Your task to perform on an android device: Go to Reddit.com Image 0: 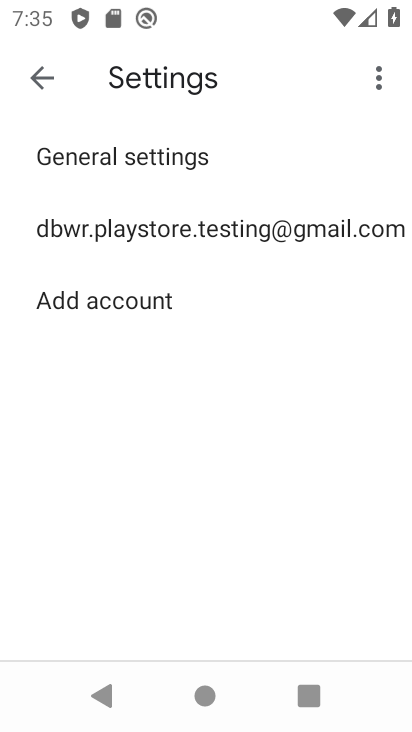
Step 0: press back button
Your task to perform on an android device: Go to Reddit.com Image 1: 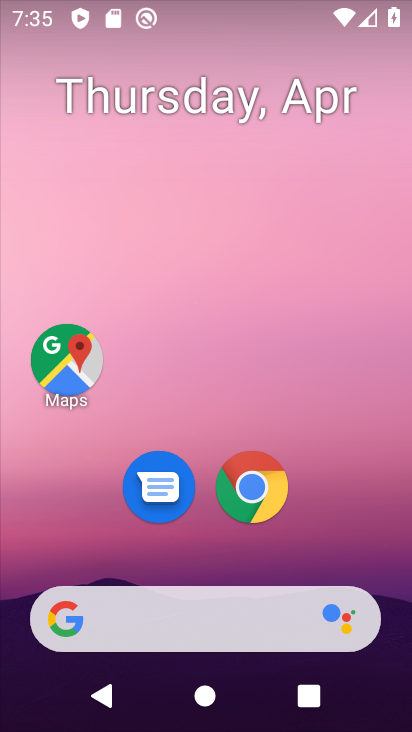
Step 1: click (252, 511)
Your task to perform on an android device: Go to Reddit.com Image 2: 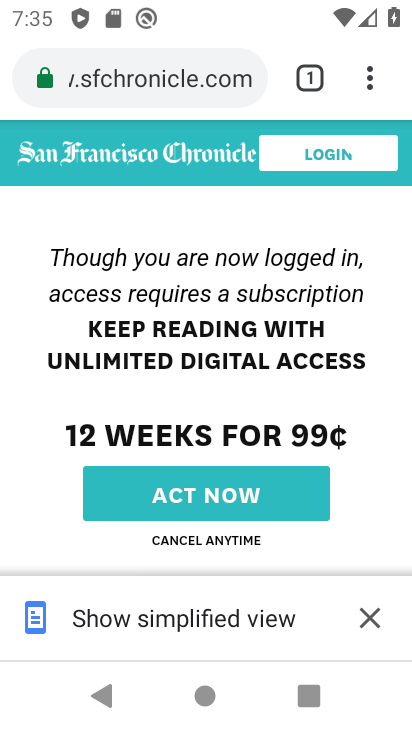
Step 2: press back button
Your task to perform on an android device: Go to Reddit.com Image 3: 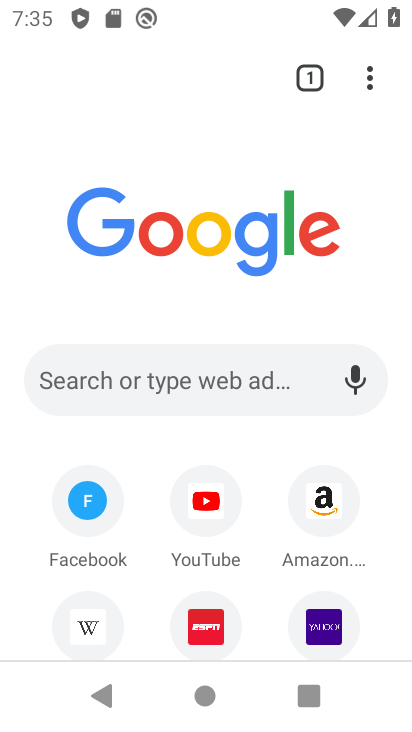
Step 3: click (141, 384)
Your task to perform on an android device: Go to Reddit.com Image 4: 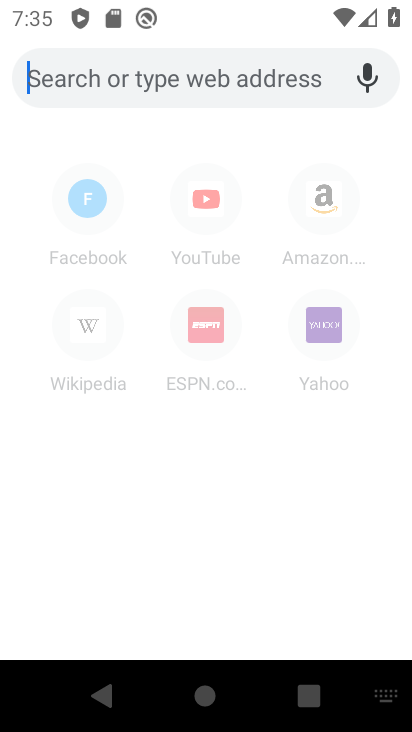
Step 4: type "reddit.com"
Your task to perform on an android device: Go to Reddit.com Image 5: 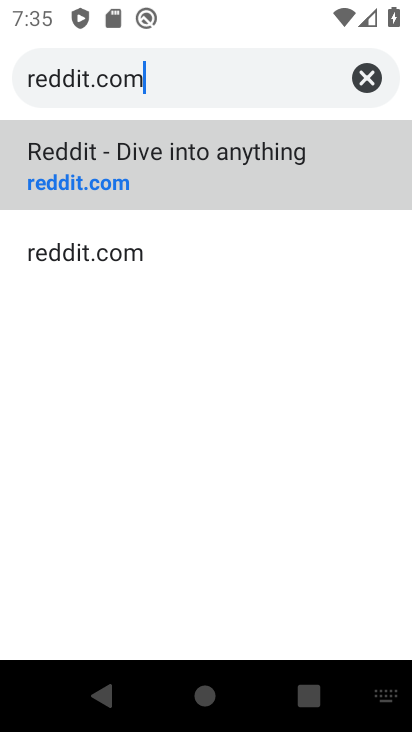
Step 5: click (253, 166)
Your task to perform on an android device: Go to Reddit.com Image 6: 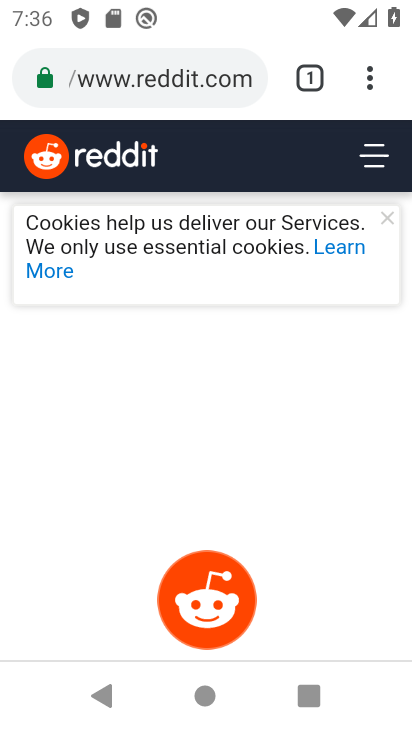
Step 6: task complete